Your task to perform on an android device: check android version Image 0: 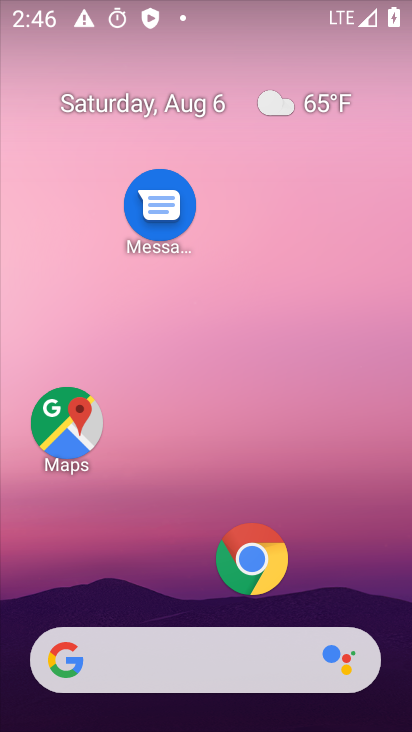
Step 0: drag from (165, 400) to (143, 113)
Your task to perform on an android device: check android version Image 1: 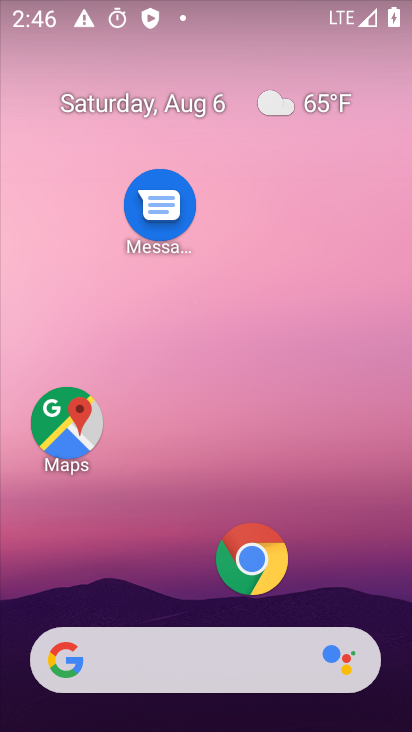
Step 1: drag from (136, 195) to (99, 22)
Your task to perform on an android device: check android version Image 2: 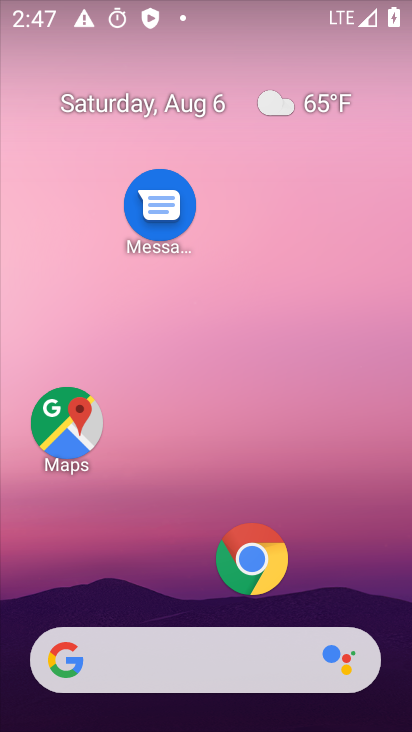
Step 2: drag from (165, 237) to (140, 8)
Your task to perform on an android device: check android version Image 3: 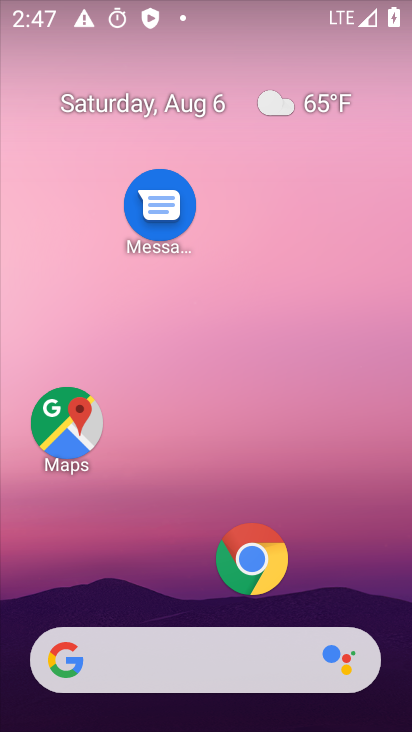
Step 3: drag from (207, 564) to (170, 5)
Your task to perform on an android device: check android version Image 4: 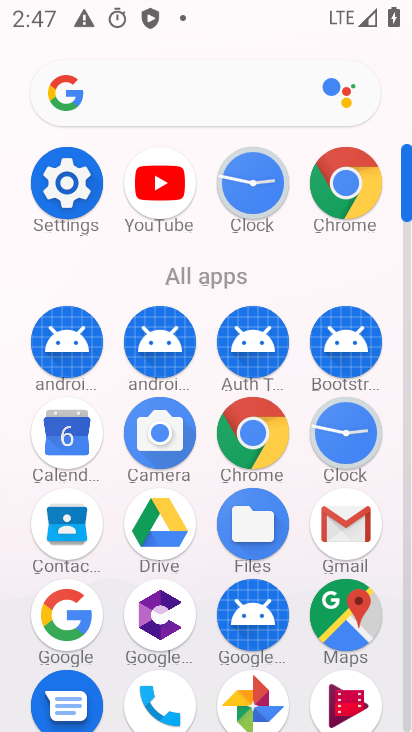
Step 4: click (67, 159)
Your task to perform on an android device: check android version Image 5: 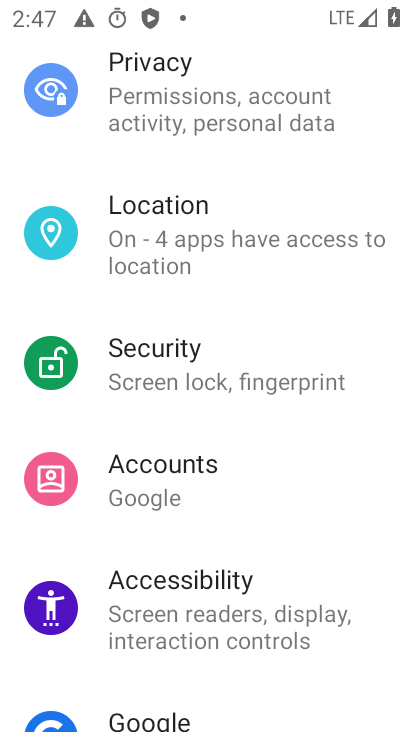
Step 5: drag from (196, 598) to (196, 185)
Your task to perform on an android device: check android version Image 6: 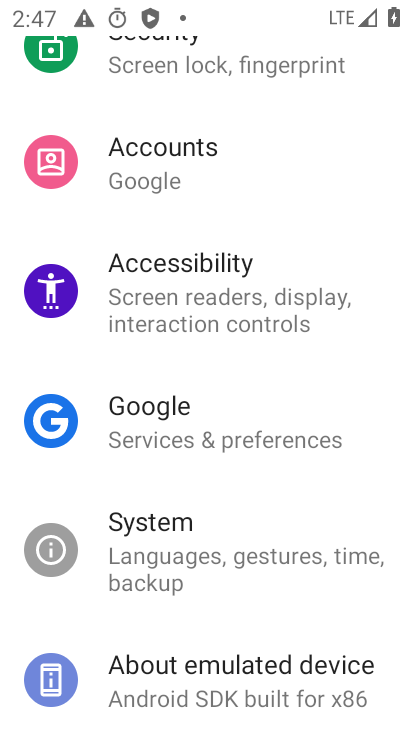
Step 6: click (184, 664)
Your task to perform on an android device: check android version Image 7: 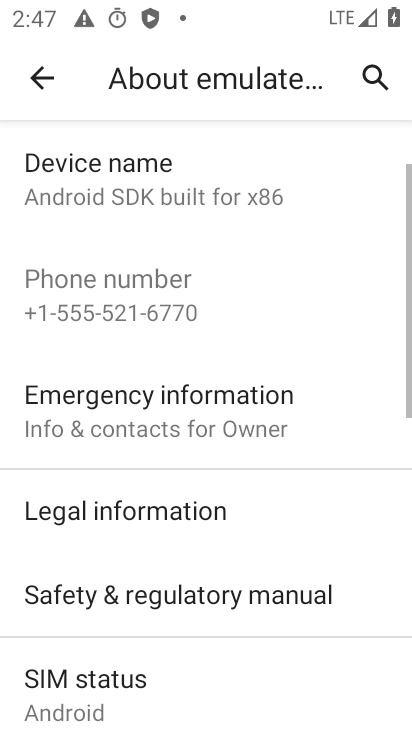
Step 7: task complete